Your task to perform on an android device: Turn off the flashlight Image 0: 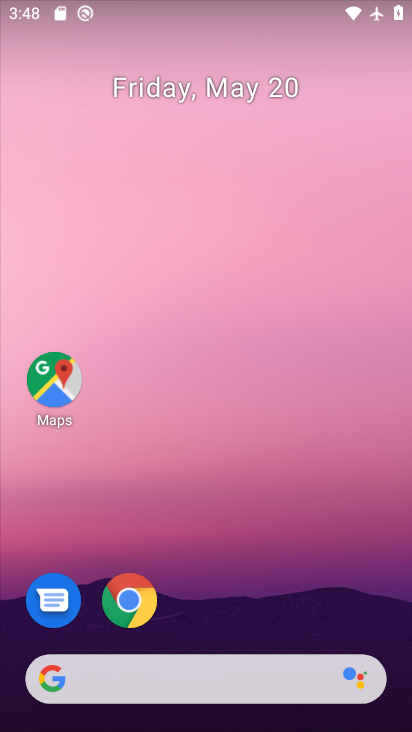
Step 0: drag from (213, 4) to (253, 581)
Your task to perform on an android device: Turn off the flashlight Image 1: 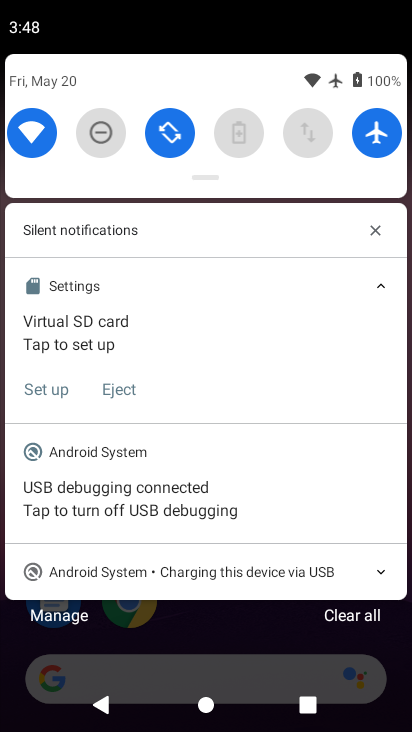
Step 1: task complete